Your task to perform on an android device: Open the web browser Image 0: 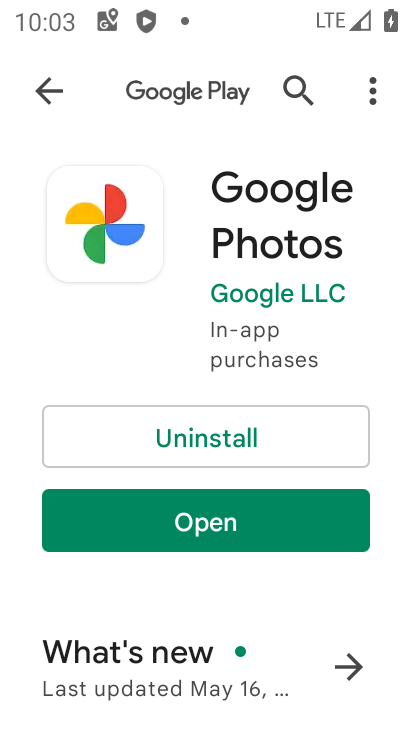
Step 0: press home button
Your task to perform on an android device: Open the web browser Image 1: 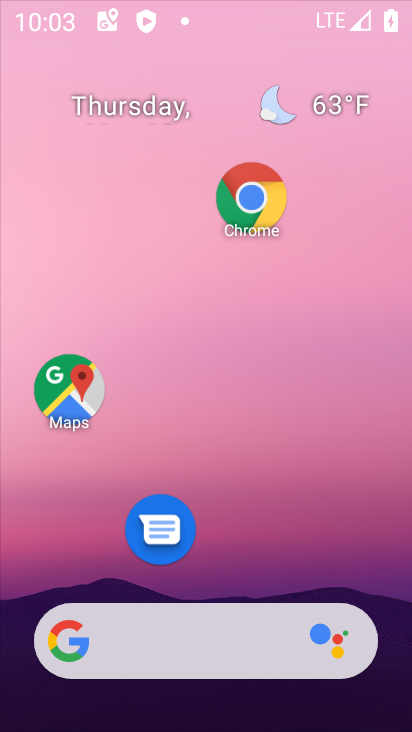
Step 1: drag from (222, 674) to (309, 151)
Your task to perform on an android device: Open the web browser Image 2: 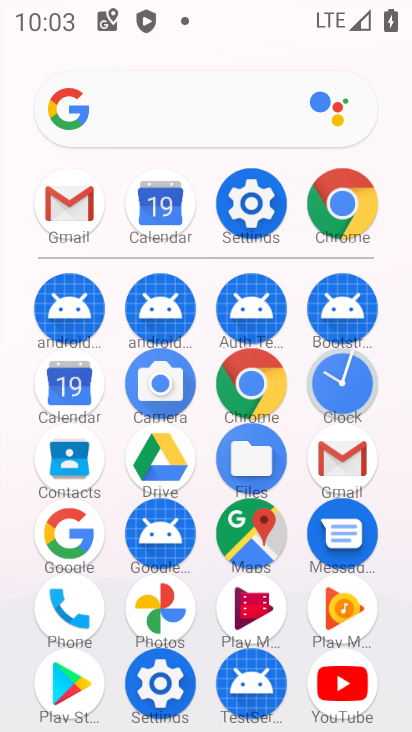
Step 2: click (335, 227)
Your task to perform on an android device: Open the web browser Image 3: 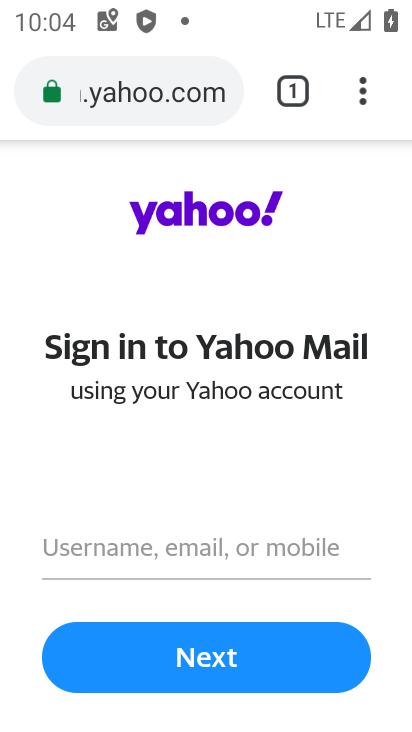
Step 3: task complete